Your task to perform on an android device: When is my next appointment? Image 0: 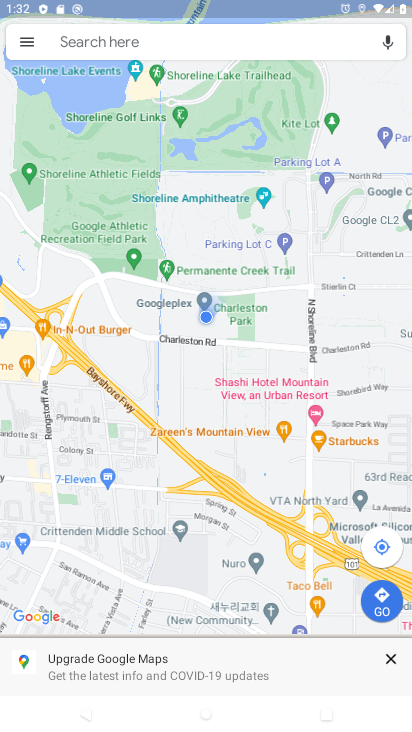
Step 0: press home button
Your task to perform on an android device: When is my next appointment? Image 1: 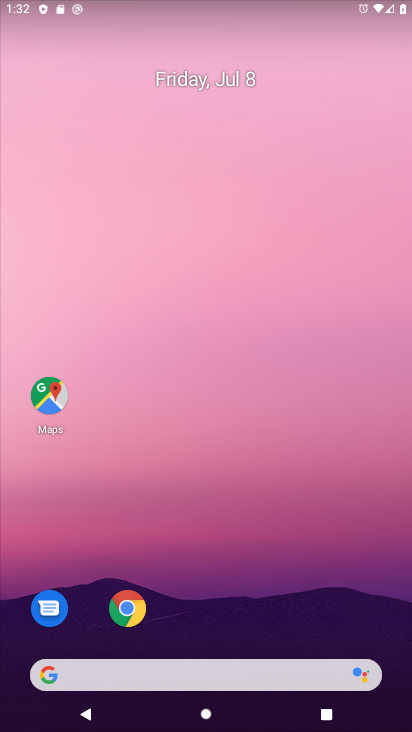
Step 1: click (192, 63)
Your task to perform on an android device: When is my next appointment? Image 2: 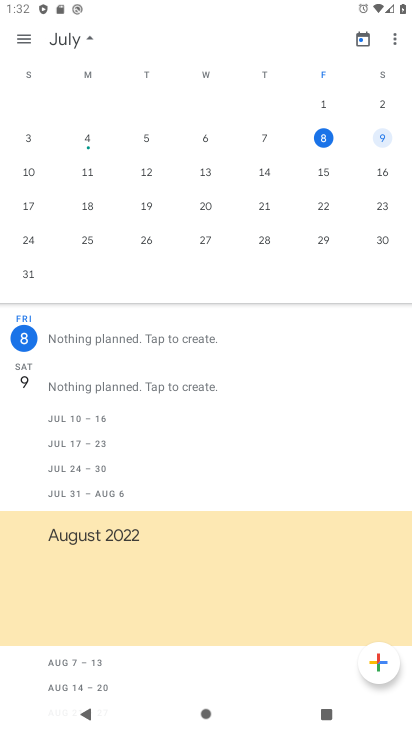
Step 2: task complete